Your task to perform on an android device: see creations saved in the google photos Image 0: 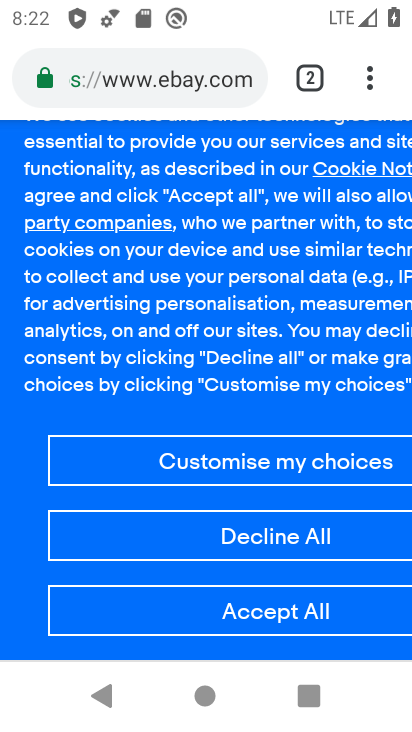
Step 0: press home button
Your task to perform on an android device: see creations saved in the google photos Image 1: 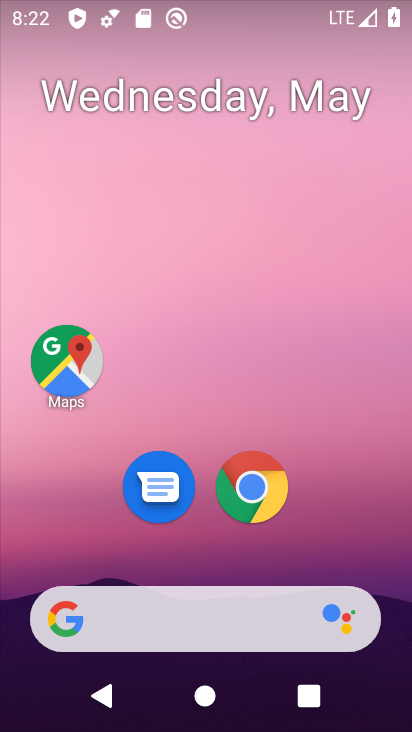
Step 1: drag from (221, 562) to (251, 215)
Your task to perform on an android device: see creations saved in the google photos Image 2: 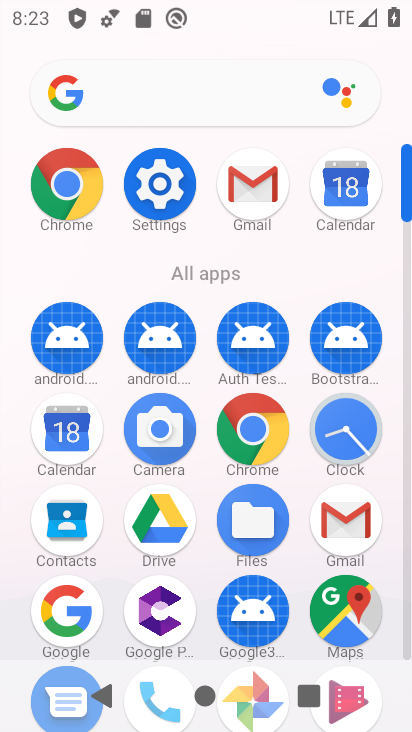
Step 2: drag from (209, 606) to (238, 293)
Your task to perform on an android device: see creations saved in the google photos Image 3: 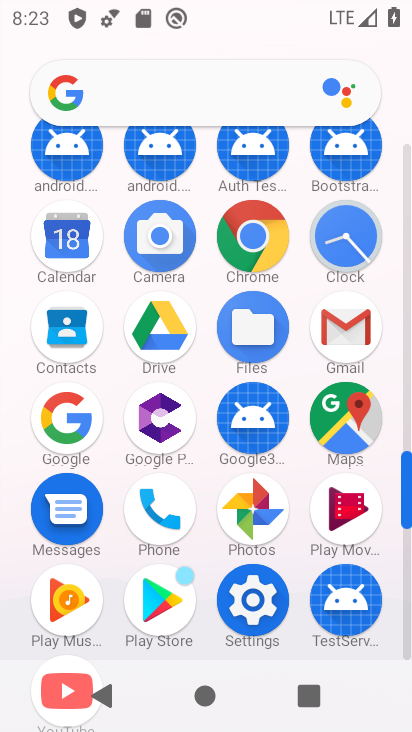
Step 3: click (236, 518)
Your task to perform on an android device: see creations saved in the google photos Image 4: 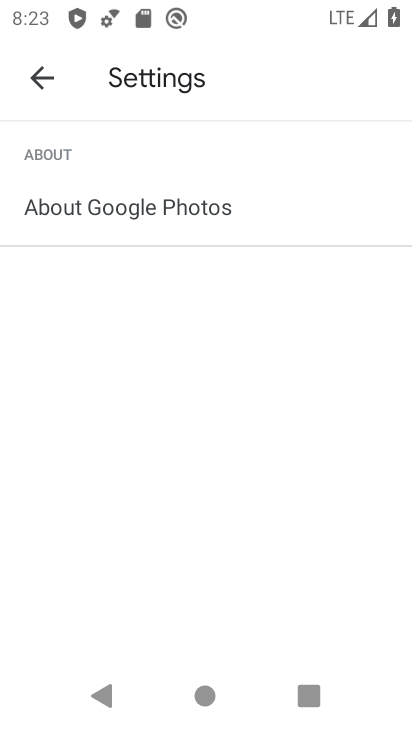
Step 4: click (36, 65)
Your task to perform on an android device: see creations saved in the google photos Image 5: 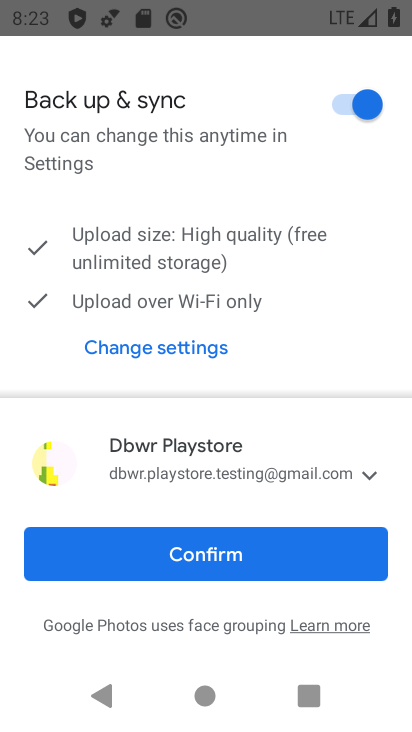
Step 5: click (242, 544)
Your task to perform on an android device: see creations saved in the google photos Image 6: 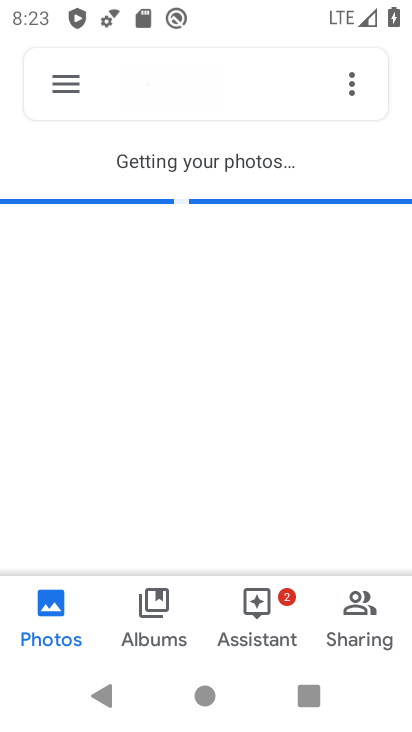
Step 6: click (216, 95)
Your task to perform on an android device: see creations saved in the google photos Image 7: 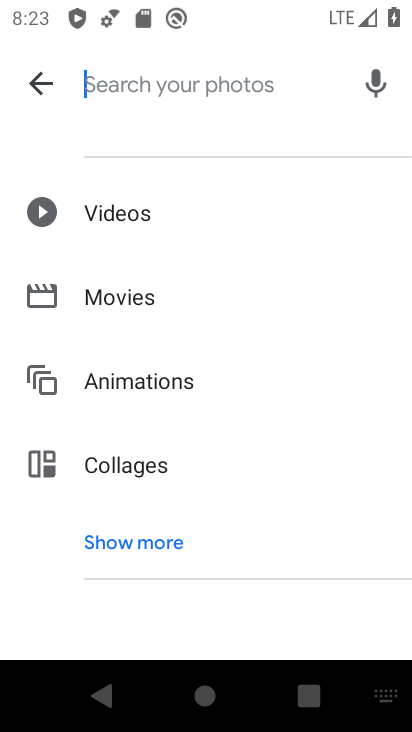
Step 7: click (133, 539)
Your task to perform on an android device: see creations saved in the google photos Image 8: 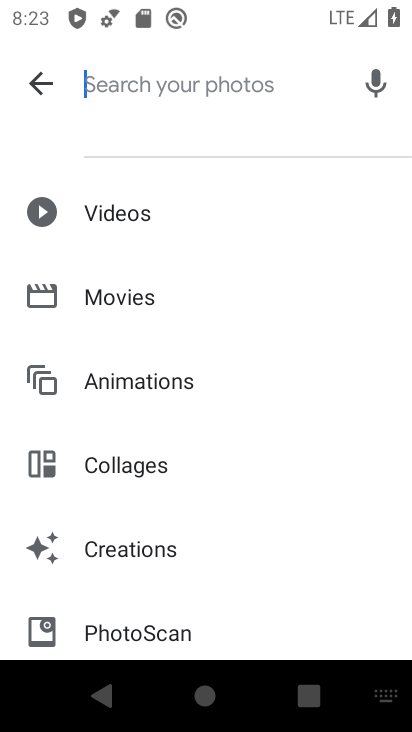
Step 8: click (163, 551)
Your task to perform on an android device: see creations saved in the google photos Image 9: 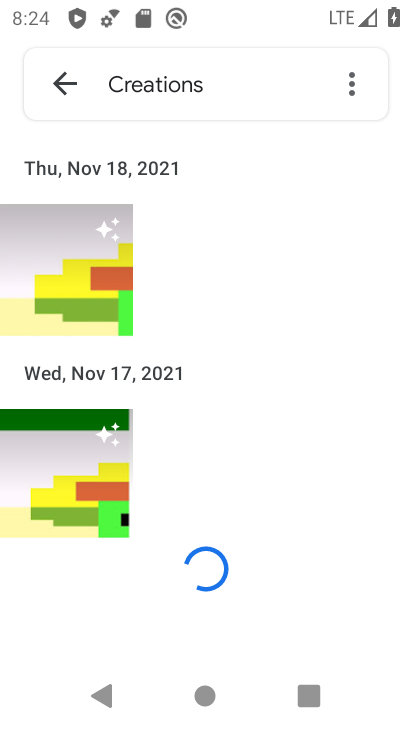
Step 9: task complete